Your task to perform on an android device: turn notification dots off Image 0: 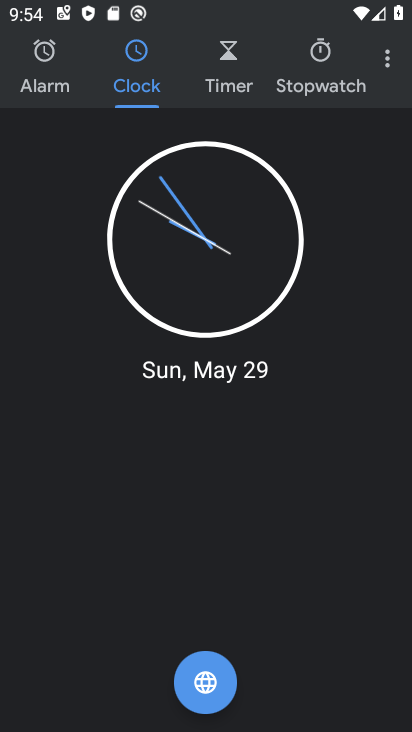
Step 0: press home button
Your task to perform on an android device: turn notification dots off Image 1: 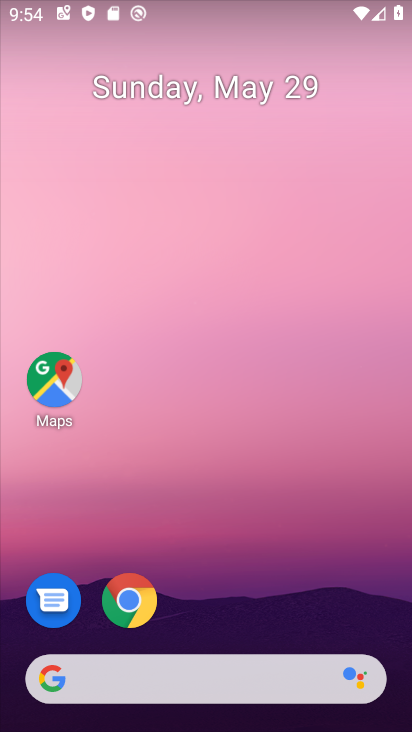
Step 1: drag from (225, 727) to (231, 214)
Your task to perform on an android device: turn notification dots off Image 2: 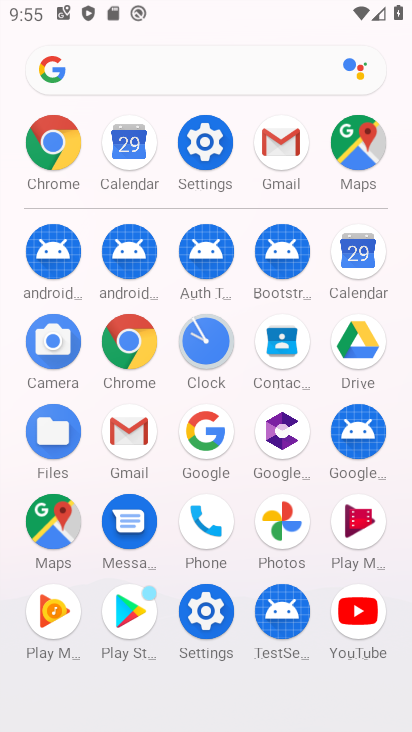
Step 2: click (208, 141)
Your task to perform on an android device: turn notification dots off Image 3: 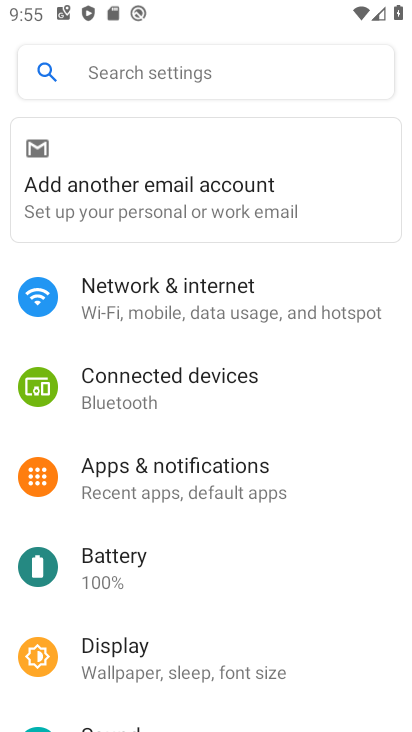
Step 3: click (153, 477)
Your task to perform on an android device: turn notification dots off Image 4: 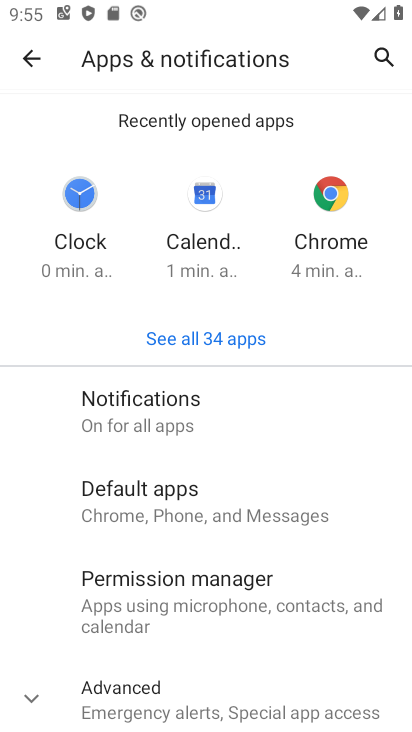
Step 4: click (143, 416)
Your task to perform on an android device: turn notification dots off Image 5: 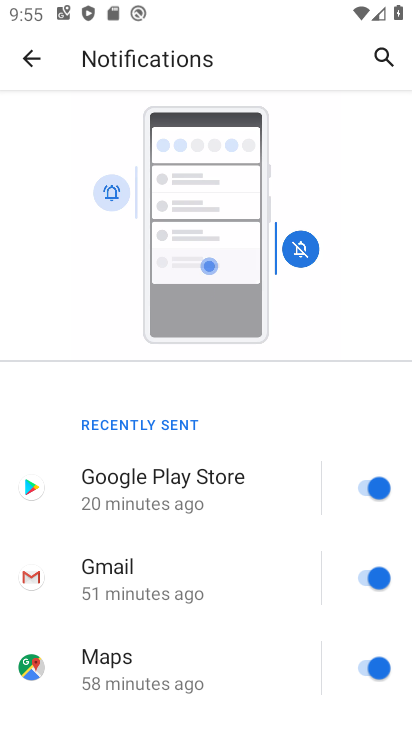
Step 5: drag from (201, 712) to (171, 313)
Your task to perform on an android device: turn notification dots off Image 6: 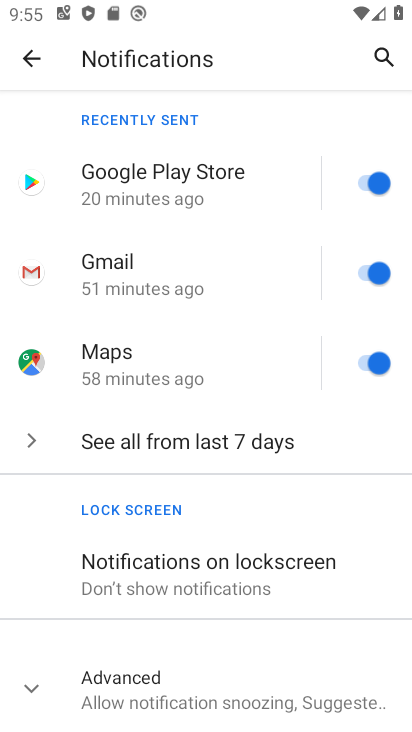
Step 6: drag from (189, 653) to (180, 350)
Your task to perform on an android device: turn notification dots off Image 7: 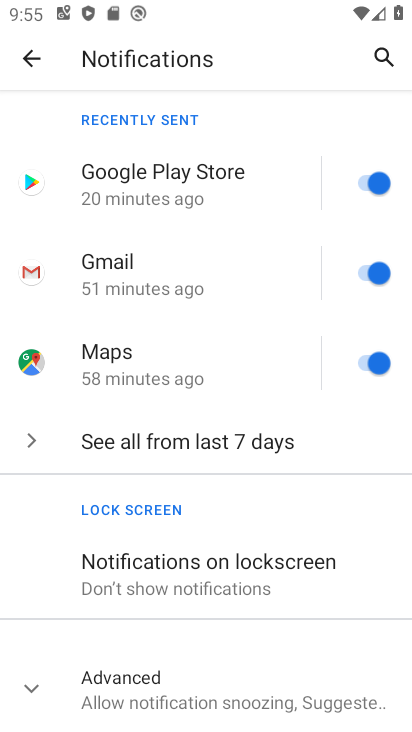
Step 7: click (173, 694)
Your task to perform on an android device: turn notification dots off Image 8: 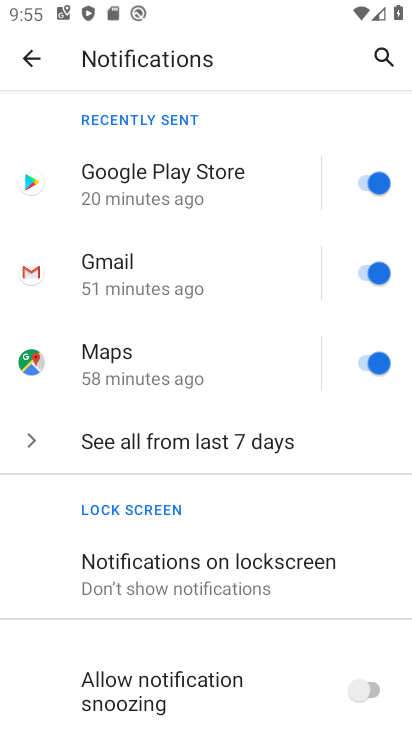
Step 8: drag from (219, 715) to (219, 330)
Your task to perform on an android device: turn notification dots off Image 9: 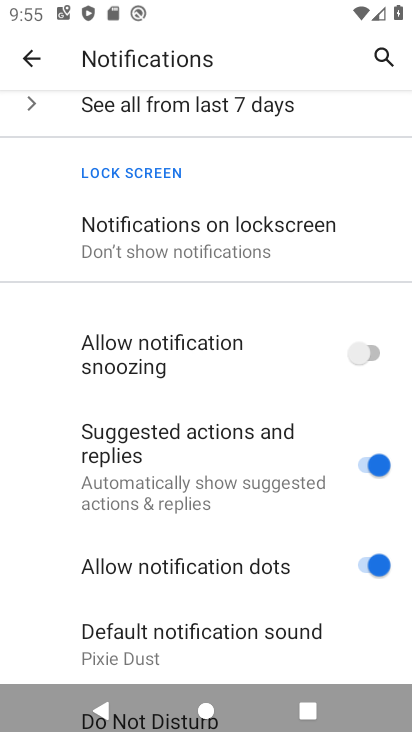
Step 9: click (363, 563)
Your task to perform on an android device: turn notification dots off Image 10: 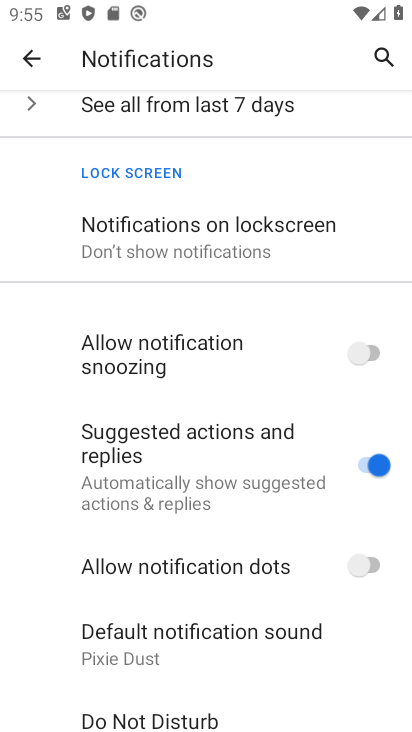
Step 10: task complete